Your task to perform on an android device: Do I have any events tomorrow? Image 0: 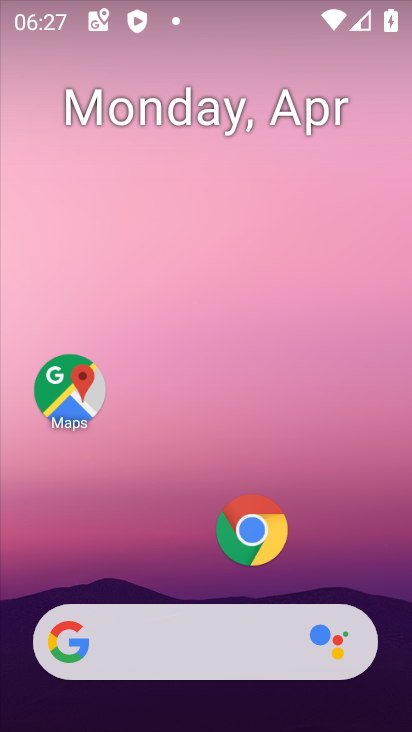
Step 0: drag from (194, 578) to (225, 66)
Your task to perform on an android device: Do I have any events tomorrow? Image 1: 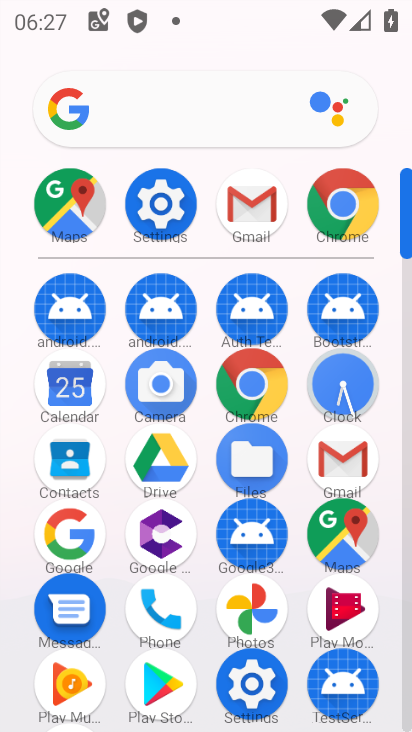
Step 1: click (68, 379)
Your task to perform on an android device: Do I have any events tomorrow? Image 2: 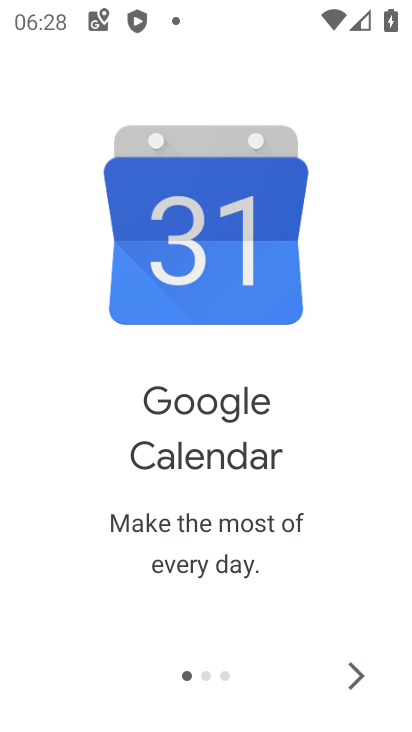
Step 2: click (345, 670)
Your task to perform on an android device: Do I have any events tomorrow? Image 3: 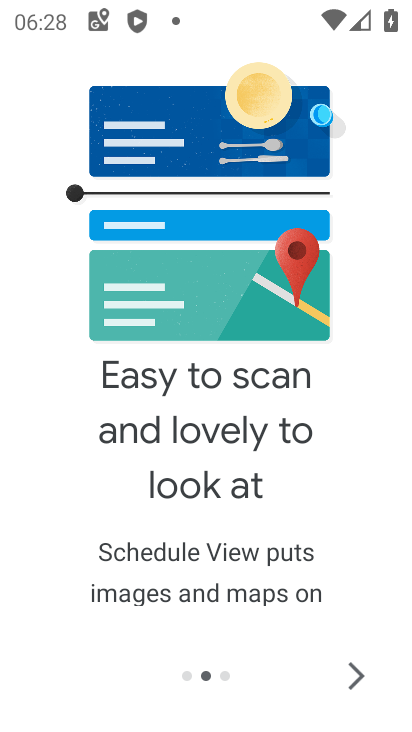
Step 3: click (353, 661)
Your task to perform on an android device: Do I have any events tomorrow? Image 4: 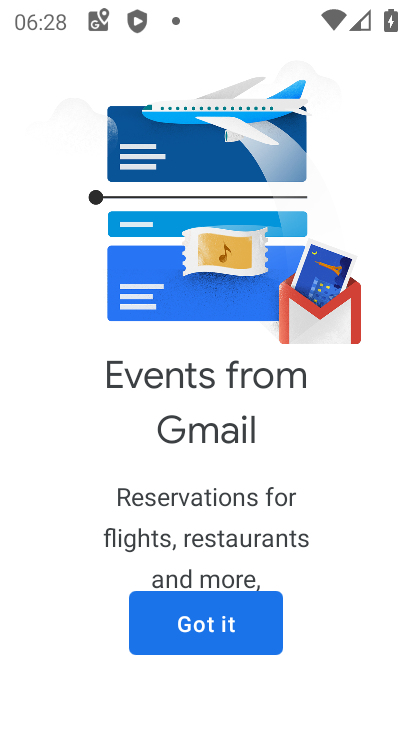
Step 4: click (205, 623)
Your task to perform on an android device: Do I have any events tomorrow? Image 5: 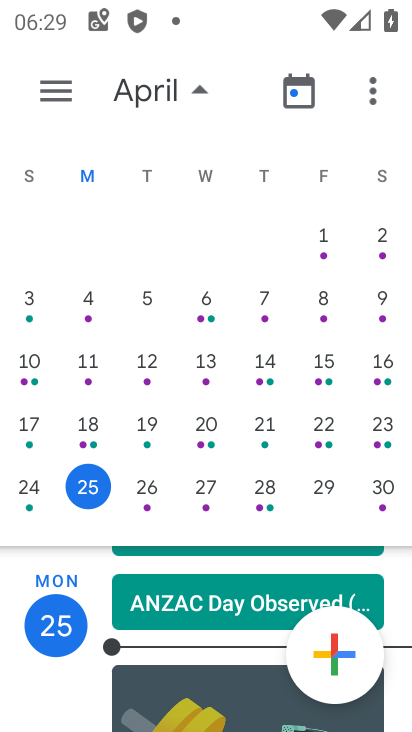
Step 5: click (140, 487)
Your task to perform on an android device: Do I have any events tomorrow? Image 6: 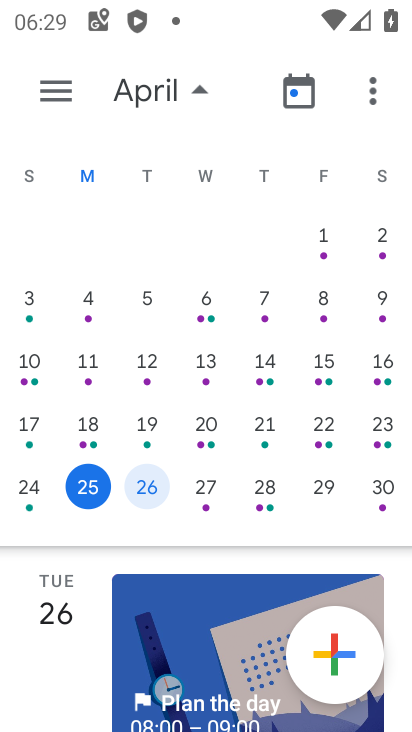
Step 6: click (145, 490)
Your task to perform on an android device: Do I have any events tomorrow? Image 7: 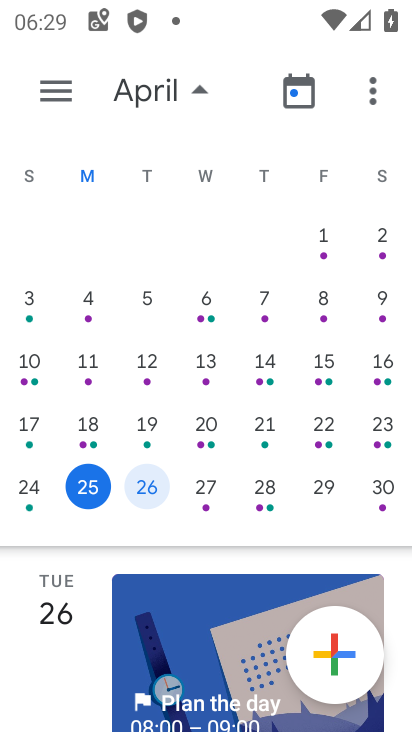
Step 7: click (80, 665)
Your task to perform on an android device: Do I have any events tomorrow? Image 8: 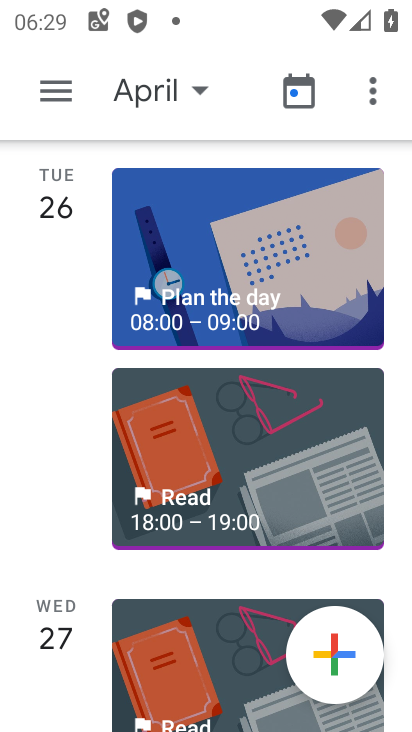
Step 8: click (85, 204)
Your task to perform on an android device: Do I have any events tomorrow? Image 9: 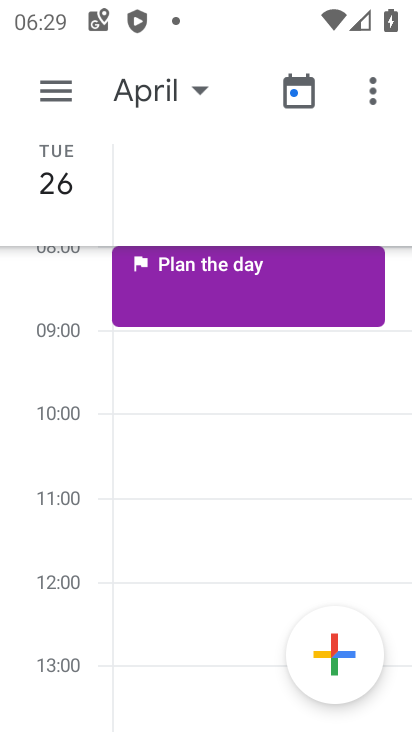
Step 9: task complete